Your task to perform on an android device: turn off wifi Image 0: 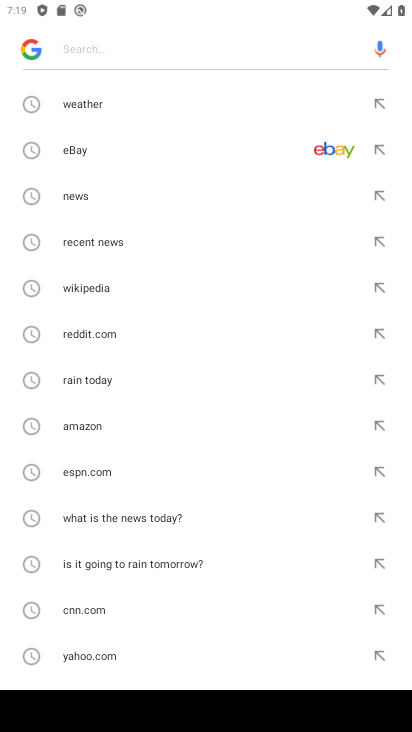
Step 0: press back button
Your task to perform on an android device: turn off wifi Image 1: 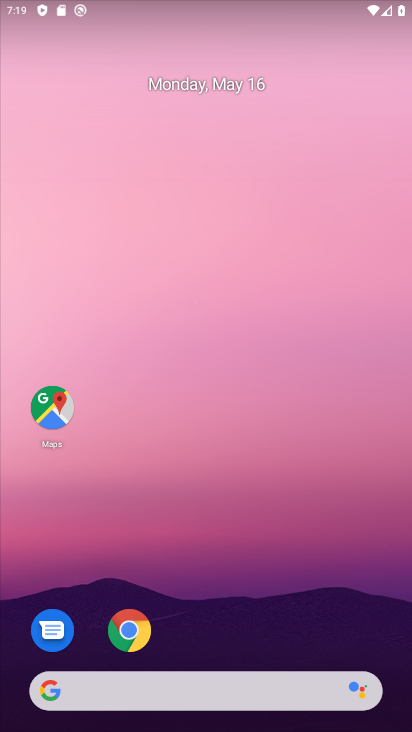
Step 1: drag from (256, 601) to (244, 197)
Your task to perform on an android device: turn off wifi Image 2: 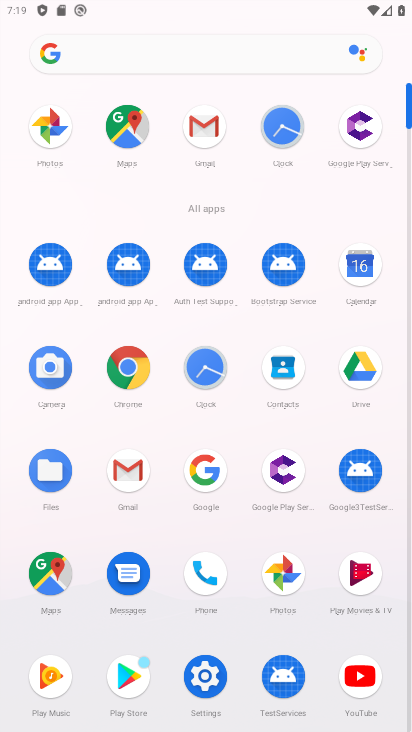
Step 2: click (207, 674)
Your task to perform on an android device: turn off wifi Image 3: 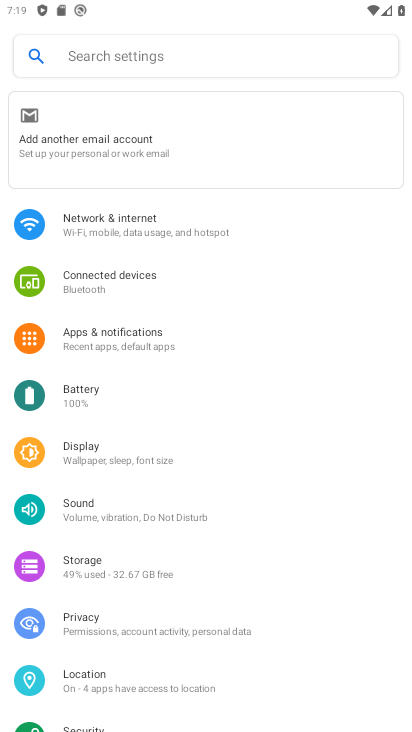
Step 3: click (135, 220)
Your task to perform on an android device: turn off wifi Image 4: 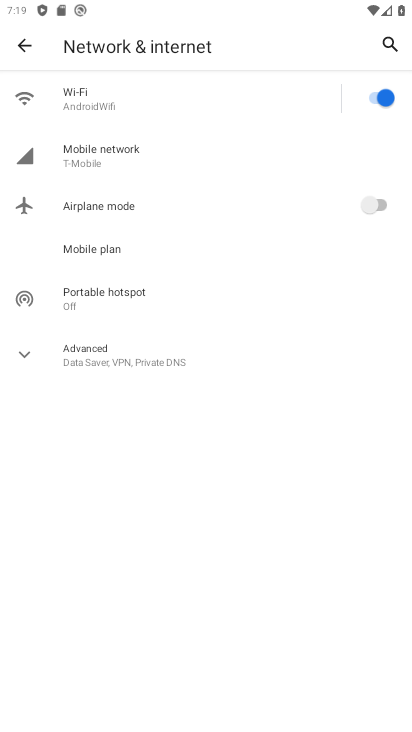
Step 4: click (378, 97)
Your task to perform on an android device: turn off wifi Image 5: 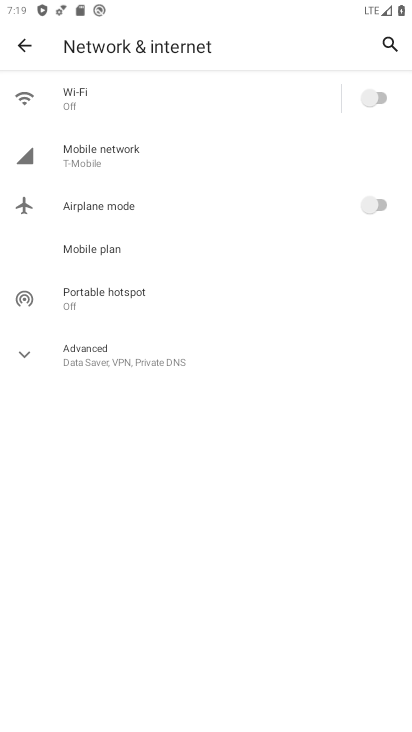
Step 5: task complete